Your task to perform on an android device: move an email to a new category in the gmail app Image 0: 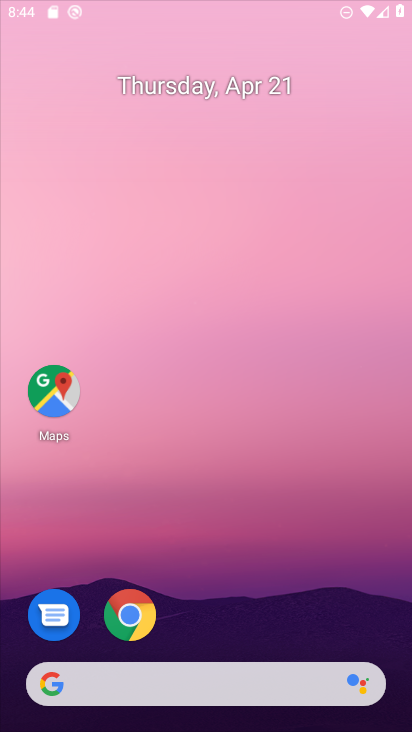
Step 0: click (272, 102)
Your task to perform on an android device: move an email to a new category in the gmail app Image 1: 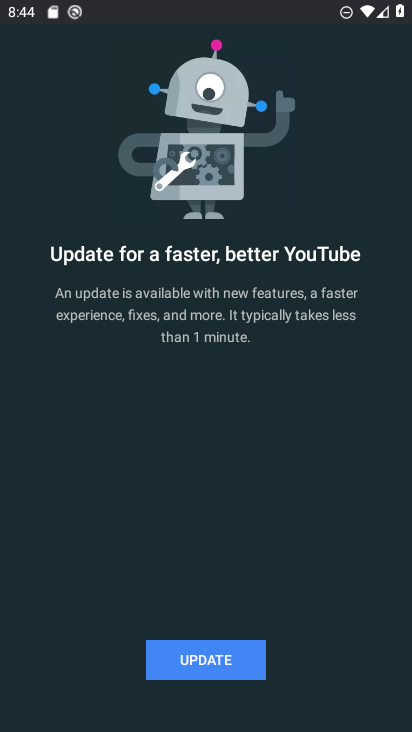
Step 1: press home button
Your task to perform on an android device: move an email to a new category in the gmail app Image 2: 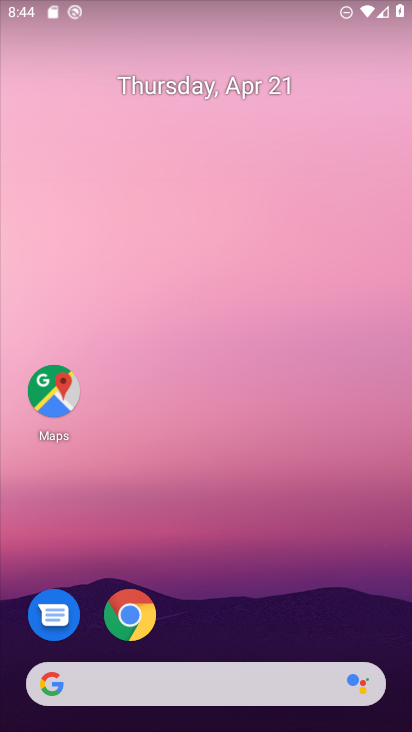
Step 2: drag from (308, 573) to (322, 15)
Your task to perform on an android device: move an email to a new category in the gmail app Image 3: 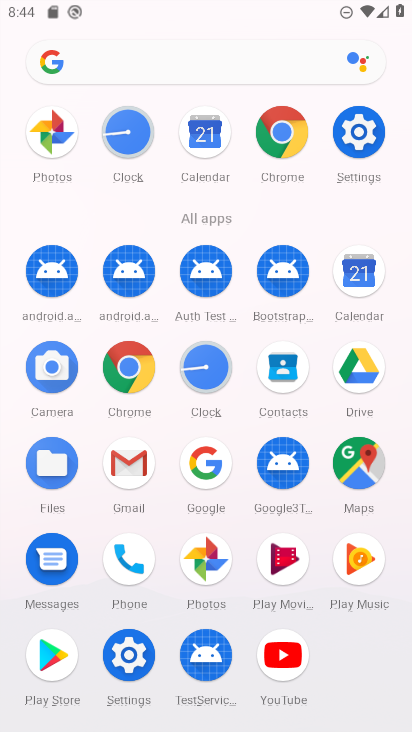
Step 3: click (150, 469)
Your task to perform on an android device: move an email to a new category in the gmail app Image 4: 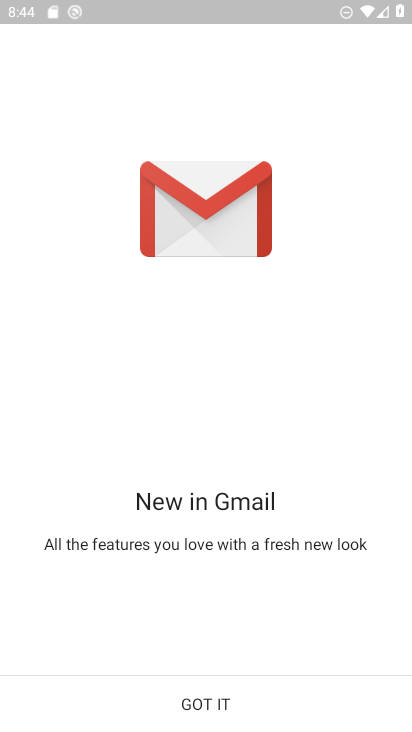
Step 4: click (202, 708)
Your task to perform on an android device: move an email to a new category in the gmail app Image 5: 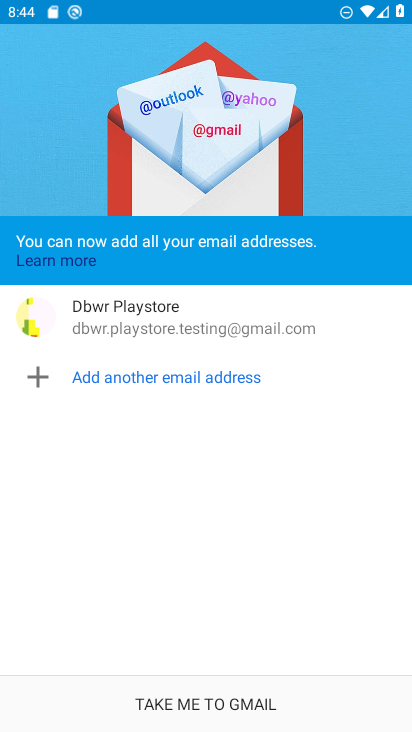
Step 5: click (228, 705)
Your task to perform on an android device: move an email to a new category in the gmail app Image 6: 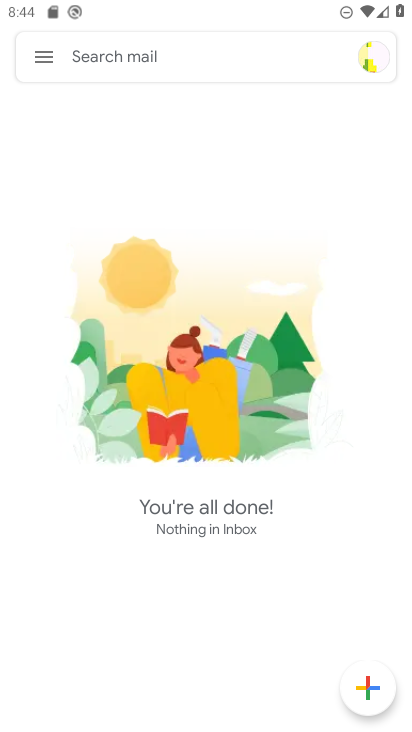
Step 6: click (38, 55)
Your task to perform on an android device: move an email to a new category in the gmail app Image 7: 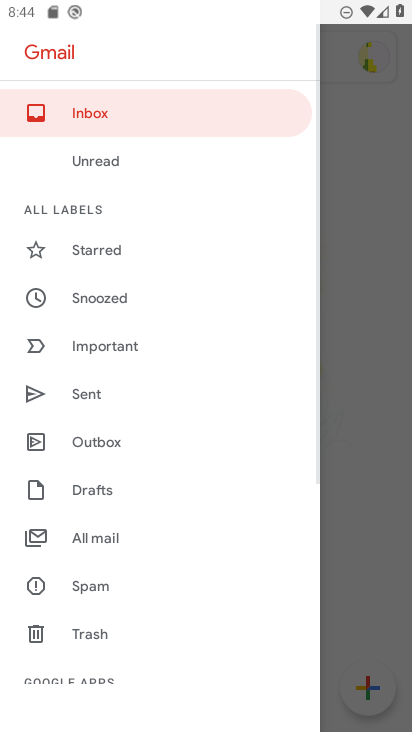
Step 7: drag from (167, 605) to (225, 176)
Your task to perform on an android device: move an email to a new category in the gmail app Image 8: 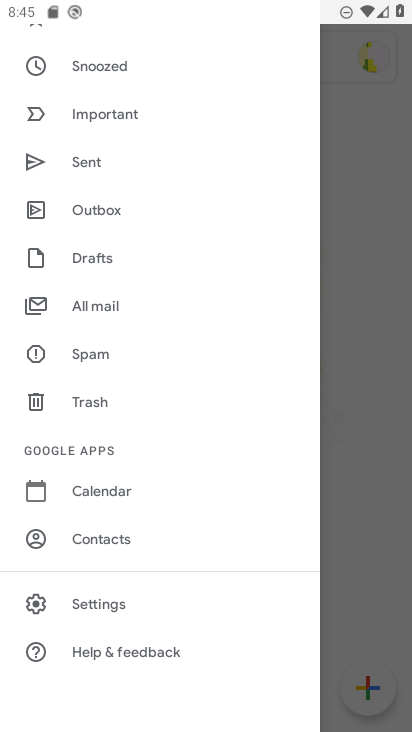
Step 8: click (100, 607)
Your task to perform on an android device: move an email to a new category in the gmail app Image 9: 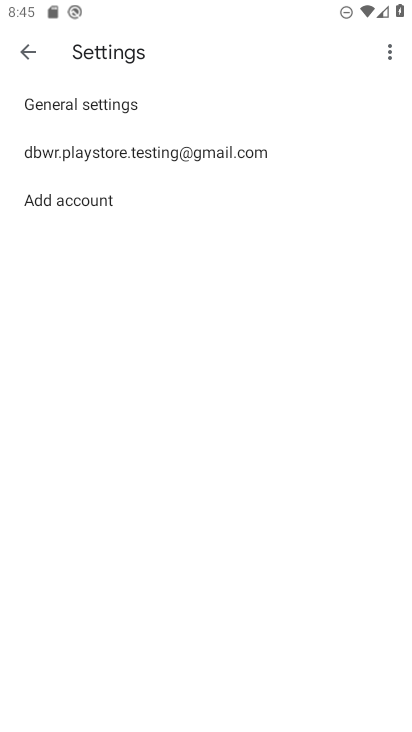
Step 9: click (115, 136)
Your task to perform on an android device: move an email to a new category in the gmail app Image 10: 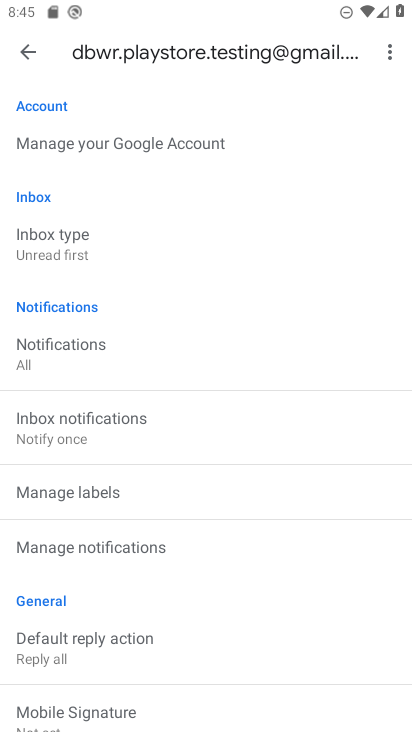
Step 10: click (62, 234)
Your task to perform on an android device: move an email to a new category in the gmail app Image 11: 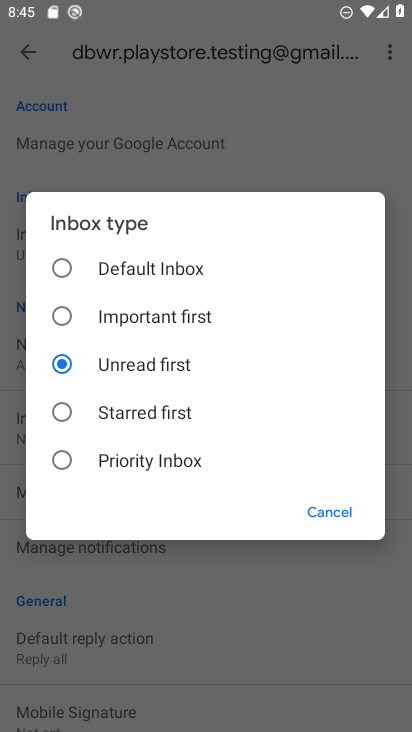
Step 11: click (63, 417)
Your task to perform on an android device: move an email to a new category in the gmail app Image 12: 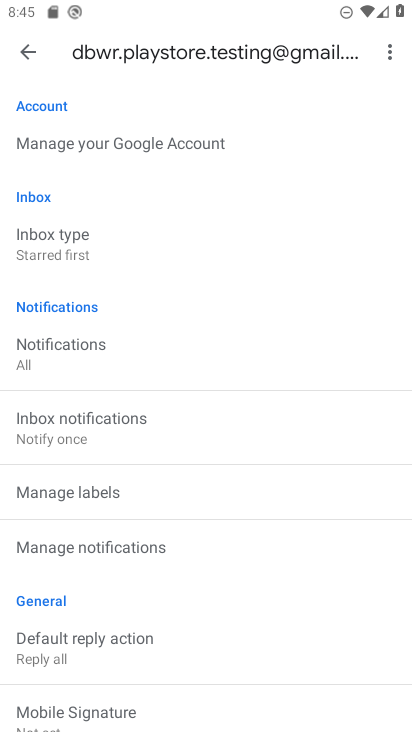
Step 12: task complete